Your task to perform on an android device: turn on sleep mode Image 0: 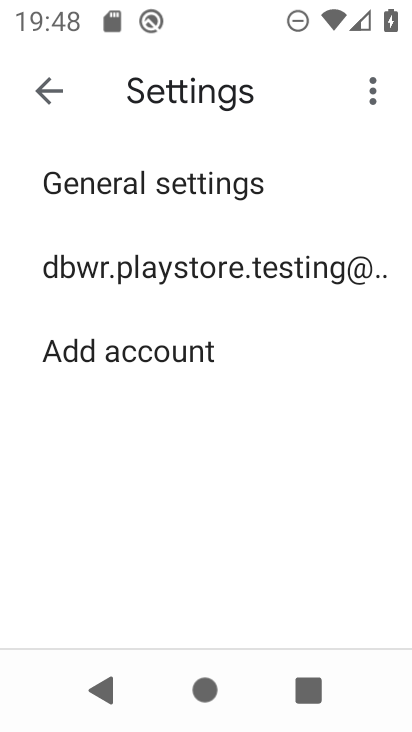
Step 0: press home button
Your task to perform on an android device: turn on sleep mode Image 1: 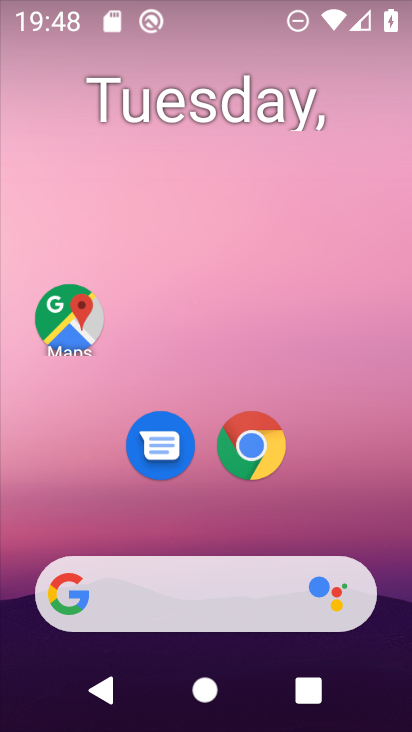
Step 1: drag from (244, 525) to (237, 7)
Your task to perform on an android device: turn on sleep mode Image 2: 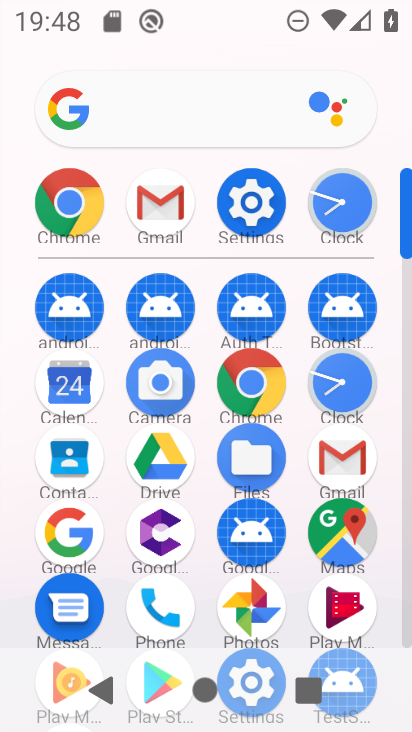
Step 2: click (247, 207)
Your task to perform on an android device: turn on sleep mode Image 3: 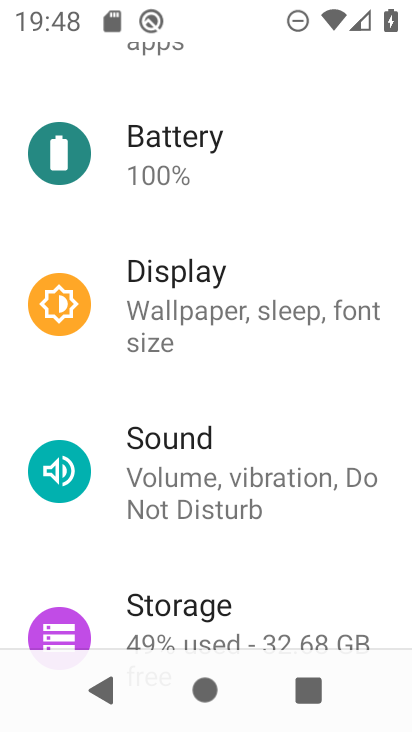
Step 3: task complete